Your task to perform on an android device: set the timer Image 0: 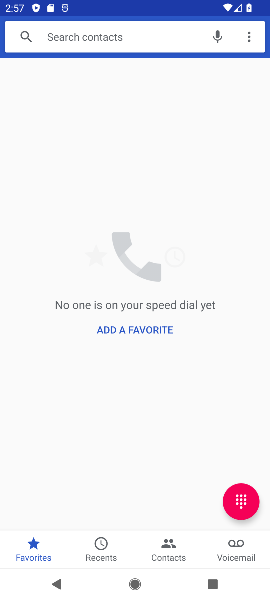
Step 0: press back button
Your task to perform on an android device: set the timer Image 1: 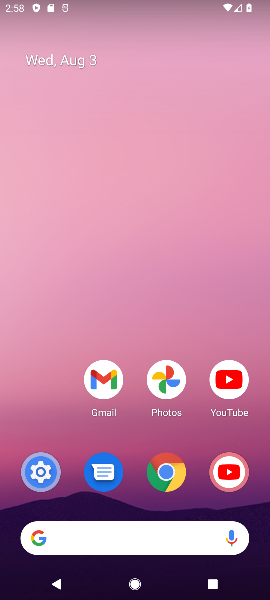
Step 1: drag from (41, 433) to (128, 0)
Your task to perform on an android device: set the timer Image 2: 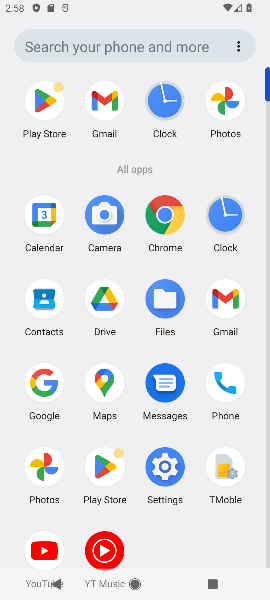
Step 2: click (233, 214)
Your task to perform on an android device: set the timer Image 3: 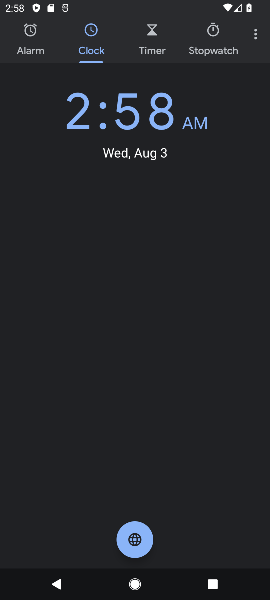
Step 3: click (152, 37)
Your task to perform on an android device: set the timer Image 4: 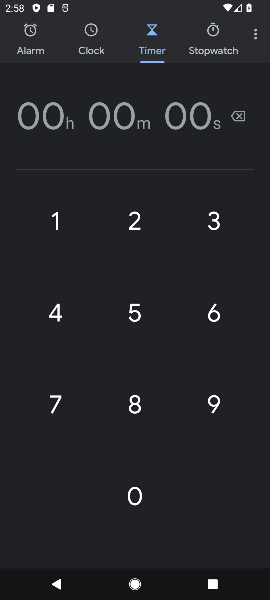
Step 4: click (117, 222)
Your task to perform on an android device: set the timer Image 5: 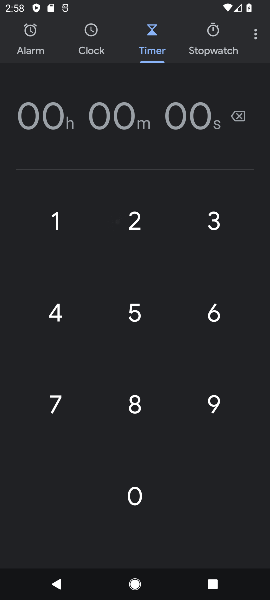
Step 5: click (226, 216)
Your task to perform on an android device: set the timer Image 6: 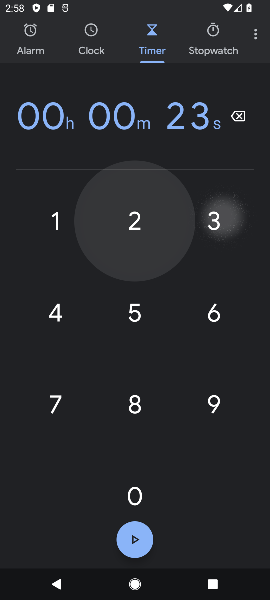
Step 6: click (68, 300)
Your task to perform on an android device: set the timer Image 7: 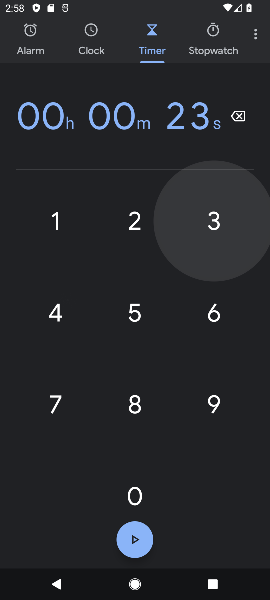
Step 7: click (121, 313)
Your task to perform on an android device: set the timer Image 8: 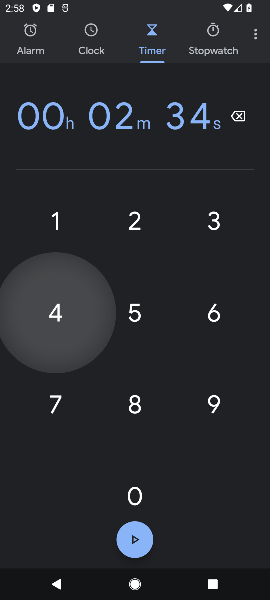
Step 8: click (189, 311)
Your task to perform on an android device: set the timer Image 9: 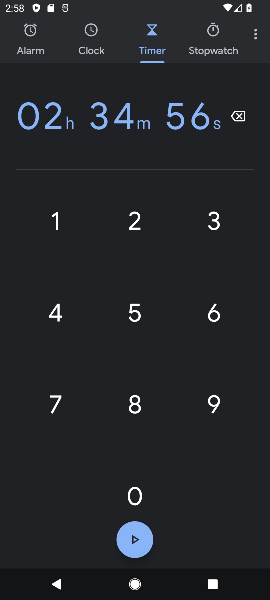
Step 9: task complete